Your task to perform on an android device: snooze an email in the gmail app Image 0: 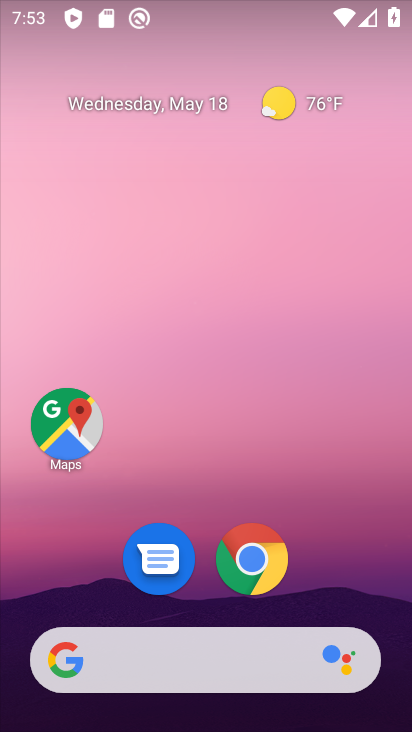
Step 0: drag from (214, 589) to (215, 91)
Your task to perform on an android device: snooze an email in the gmail app Image 1: 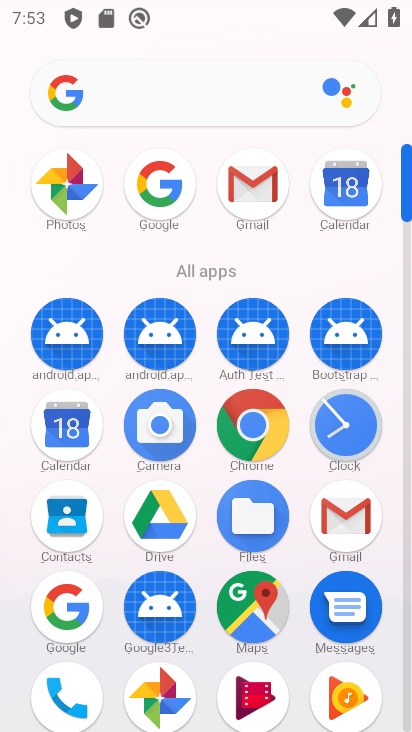
Step 1: click (251, 187)
Your task to perform on an android device: snooze an email in the gmail app Image 2: 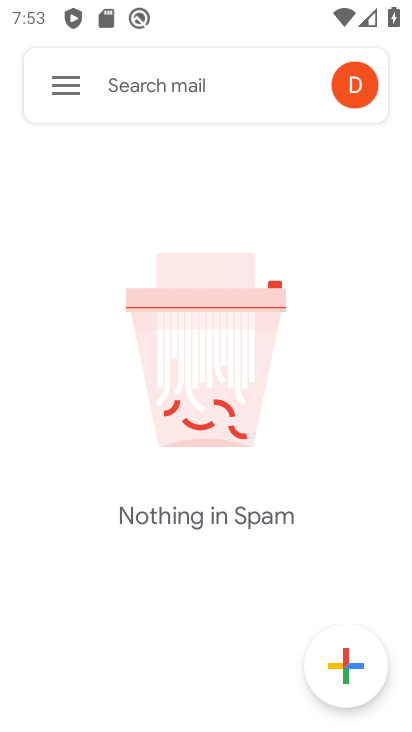
Step 2: click (68, 82)
Your task to perform on an android device: snooze an email in the gmail app Image 3: 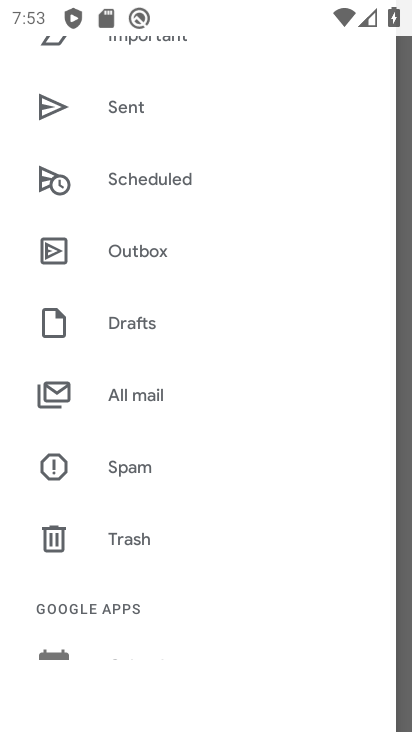
Step 3: click (165, 377)
Your task to perform on an android device: snooze an email in the gmail app Image 4: 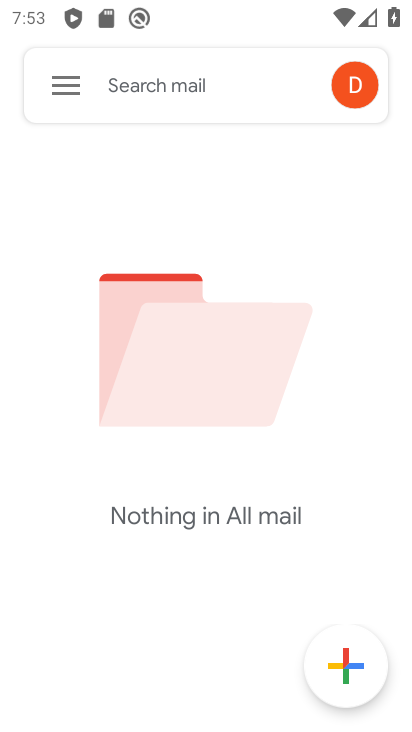
Step 4: task complete